Your task to perform on an android device: turn pop-ups off in chrome Image 0: 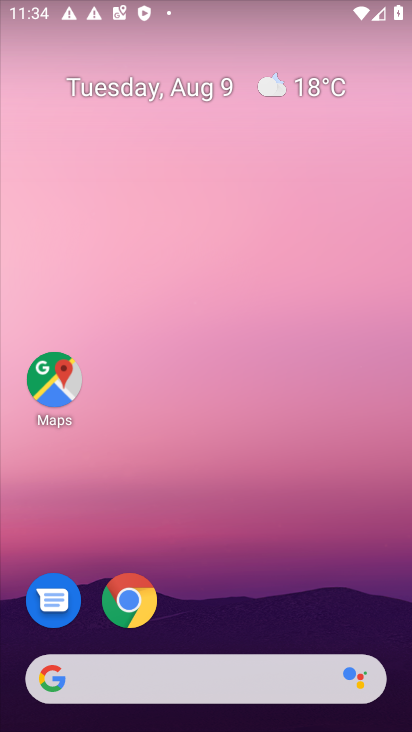
Step 0: click (114, 584)
Your task to perform on an android device: turn pop-ups off in chrome Image 1: 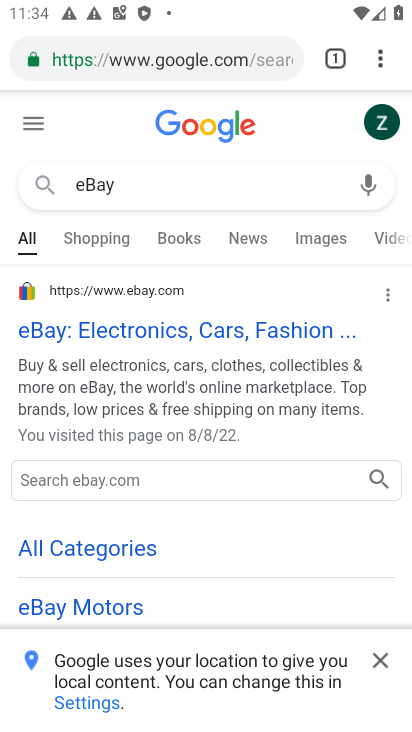
Step 1: click (390, 61)
Your task to perform on an android device: turn pop-ups off in chrome Image 2: 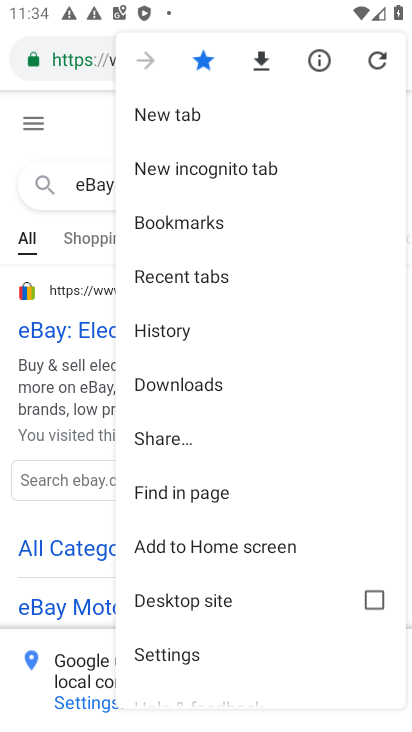
Step 2: click (203, 661)
Your task to perform on an android device: turn pop-ups off in chrome Image 3: 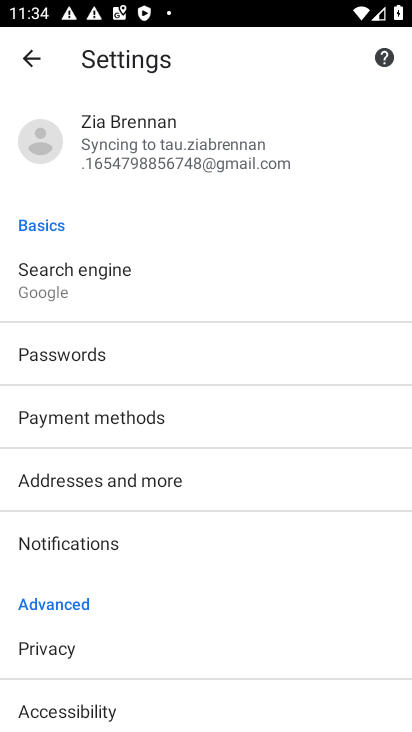
Step 3: drag from (168, 605) to (155, 532)
Your task to perform on an android device: turn pop-ups off in chrome Image 4: 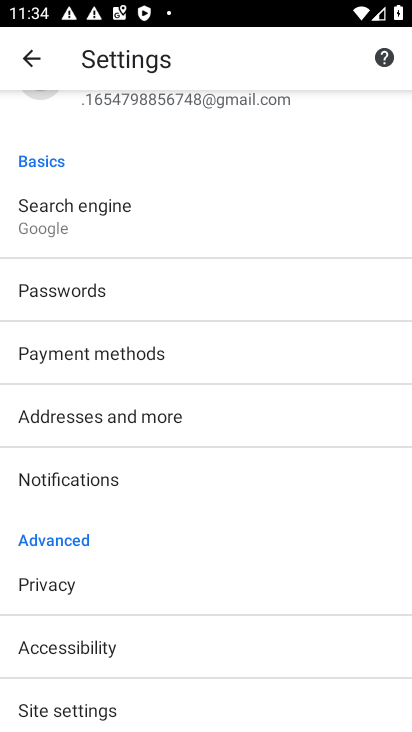
Step 4: click (53, 717)
Your task to perform on an android device: turn pop-ups off in chrome Image 5: 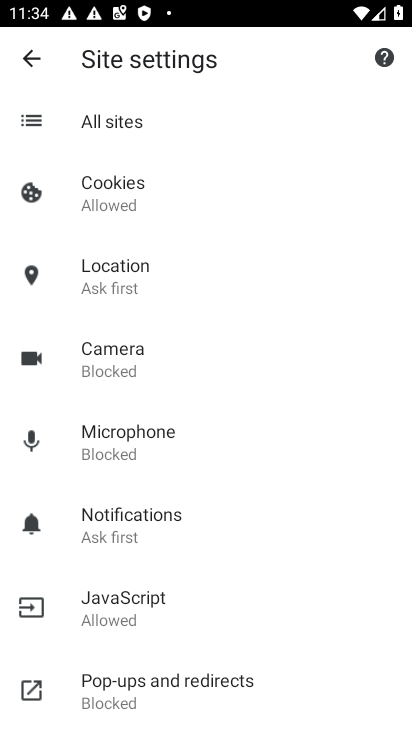
Step 5: click (162, 705)
Your task to perform on an android device: turn pop-ups off in chrome Image 6: 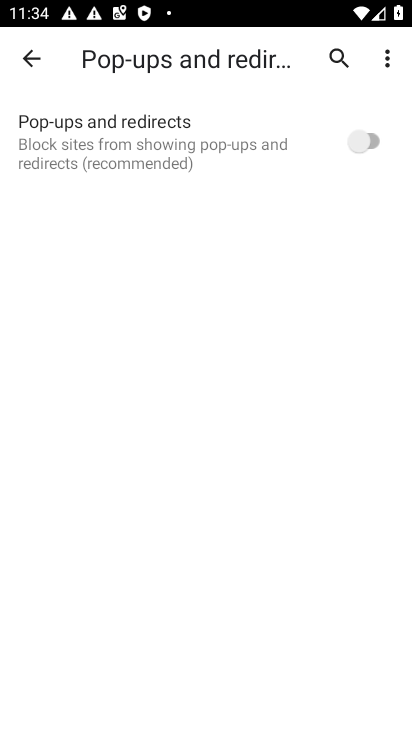
Step 6: click (364, 139)
Your task to perform on an android device: turn pop-ups off in chrome Image 7: 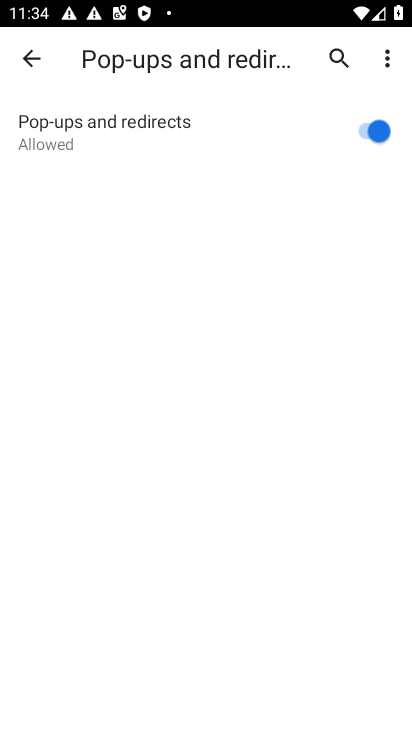
Step 7: task complete